Your task to perform on an android device: Check the news Image 0: 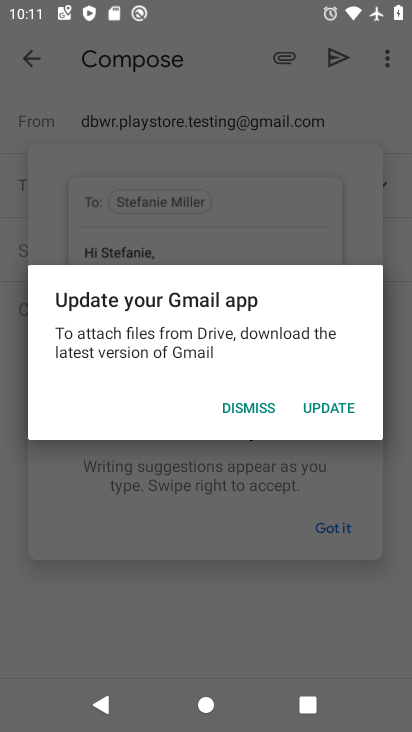
Step 0: press home button
Your task to perform on an android device: Check the news Image 1: 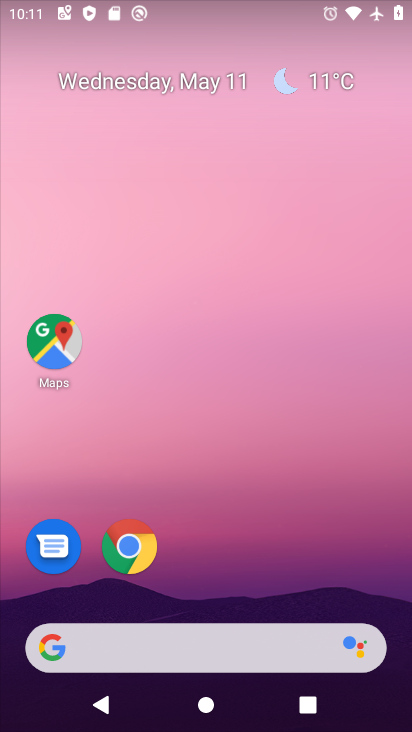
Step 1: task complete